Your task to perform on an android device: set the timer Image 0: 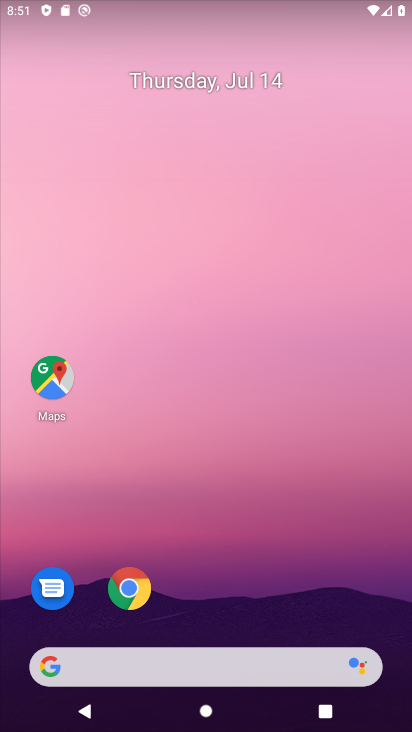
Step 0: drag from (350, 604) to (306, 32)
Your task to perform on an android device: set the timer Image 1: 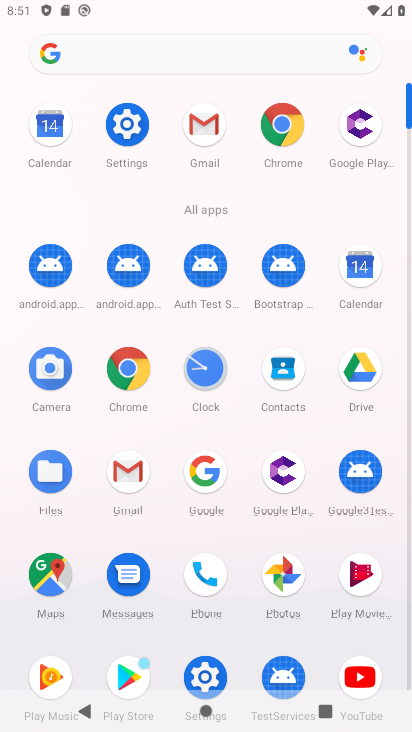
Step 1: click (207, 379)
Your task to perform on an android device: set the timer Image 2: 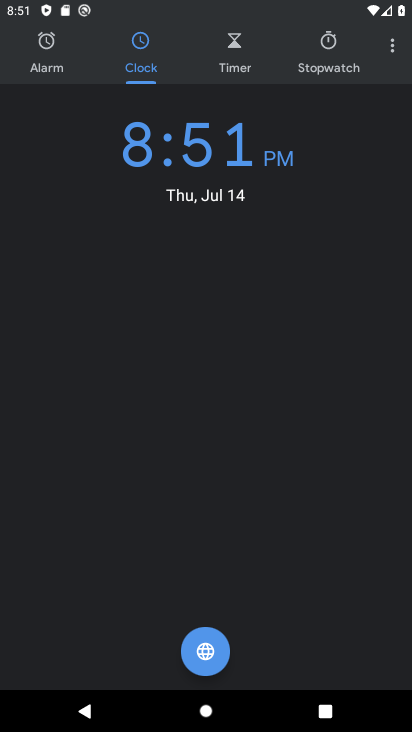
Step 2: click (66, 54)
Your task to perform on an android device: set the timer Image 3: 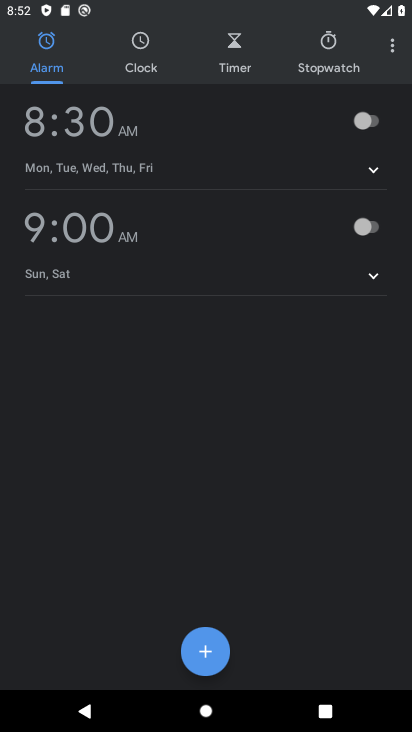
Step 3: click (379, 122)
Your task to perform on an android device: set the timer Image 4: 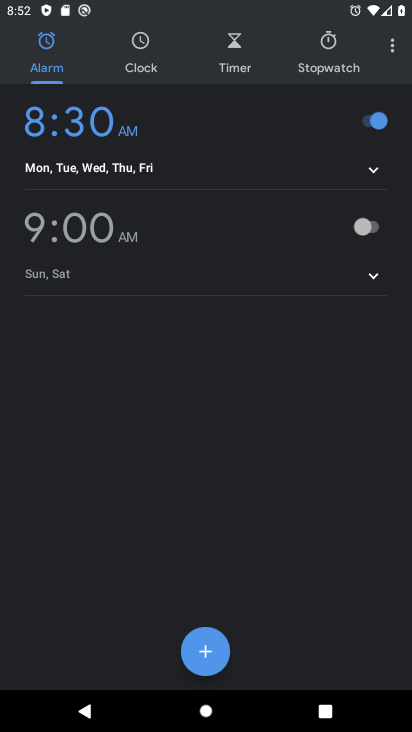
Step 4: task complete